Your task to perform on an android device: open sync settings in chrome Image 0: 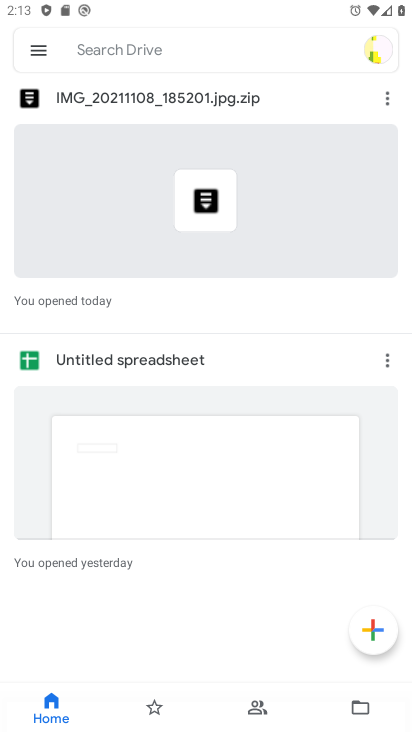
Step 0: press home button
Your task to perform on an android device: open sync settings in chrome Image 1: 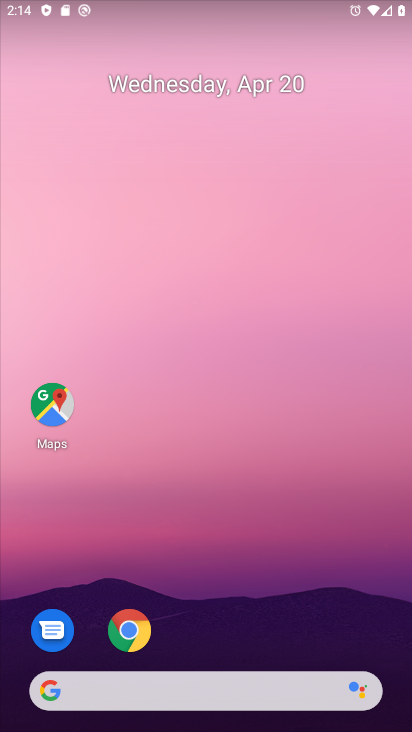
Step 1: drag from (184, 558) to (178, 221)
Your task to perform on an android device: open sync settings in chrome Image 2: 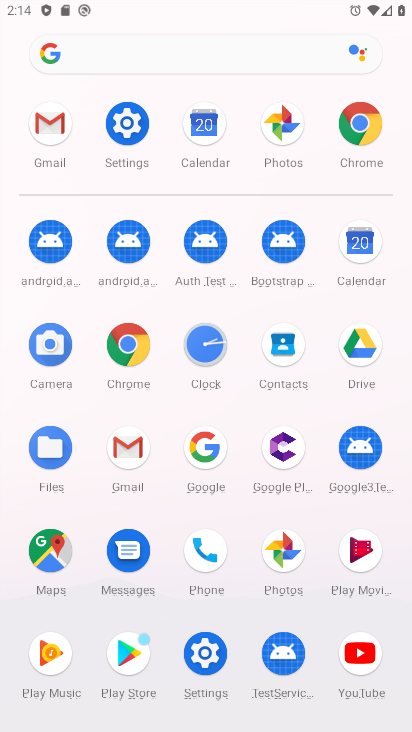
Step 2: click (363, 123)
Your task to perform on an android device: open sync settings in chrome Image 3: 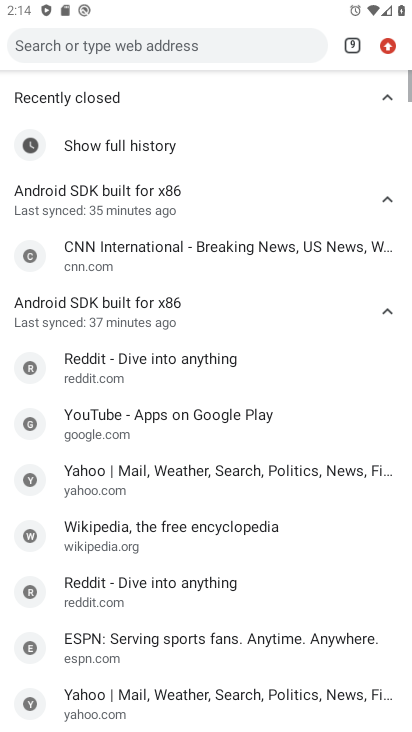
Step 3: drag from (387, 50) to (241, 440)
Your task to perform on an android device: open sync settings in chrome Image 4: 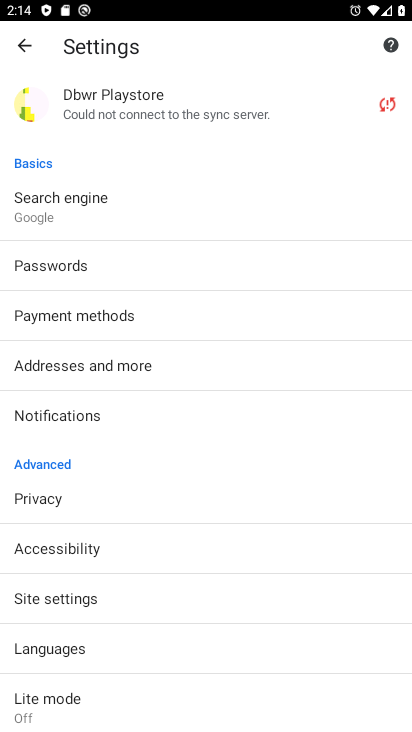
Step 4: click (50, 595)
Your task to perform on an android device: open sync settings in chrome Image 5: 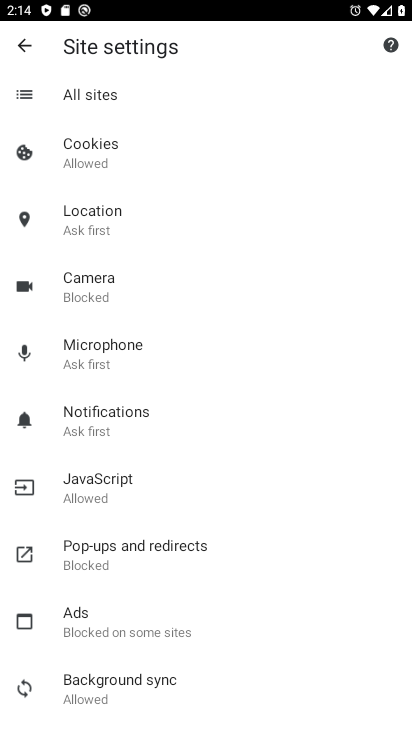
Step 5: click (101, 681)
Your task to perform on an android device: open sync settings in chrome Image 6: 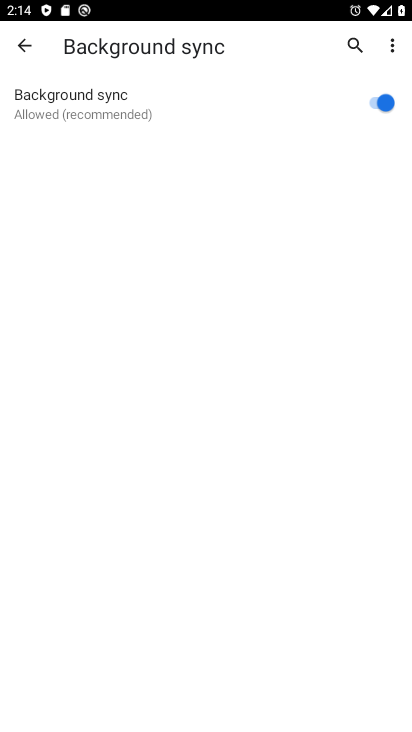
Step 6: task complete